Your task to perform on an android device: open a bookmark in the chrome app Image 0: 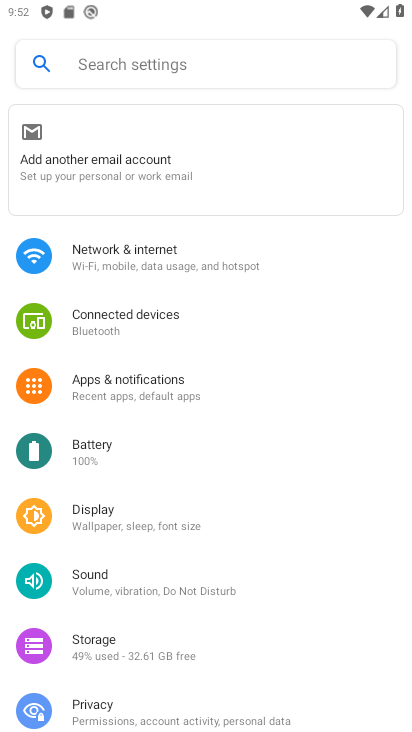
Step 0: press home button
Your task to perform on an android device: open a bookmark in the chrome app Image 1: 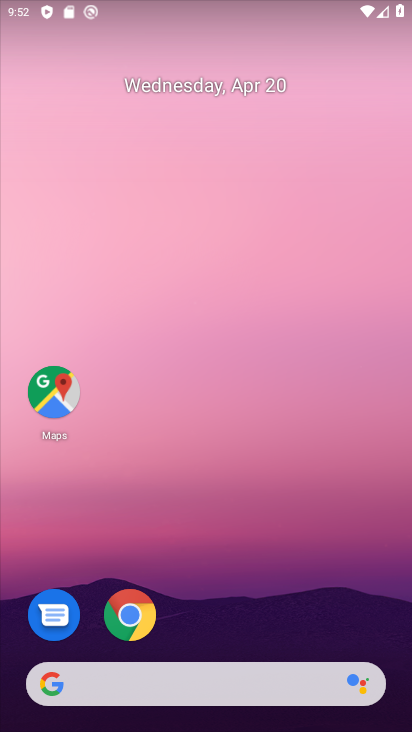
Step 1: click (137, 634)
Your task to perform on an android device: open a bookmark in the chrome app Image 2: 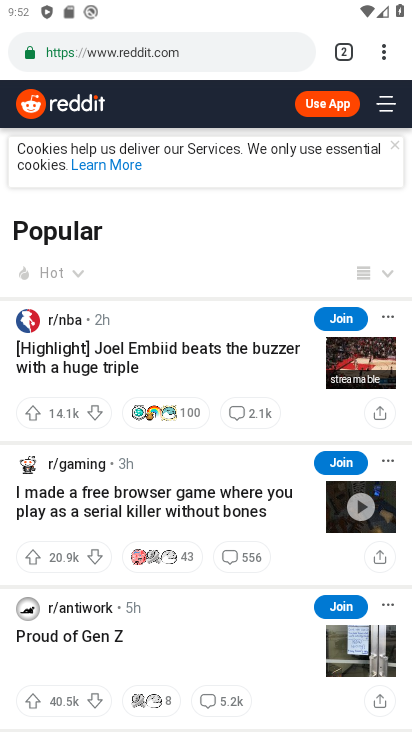
Step 2: click (392, 58)
Your task to perform on an android device: open a bookmark in the chrome app Image 3: 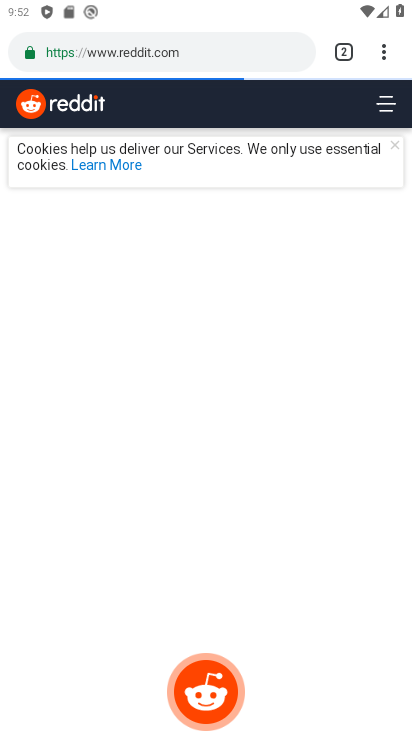
Step 3: click (395, 48)
Your task to perform on an android device: open a bookmark in the chrome app Image 4: 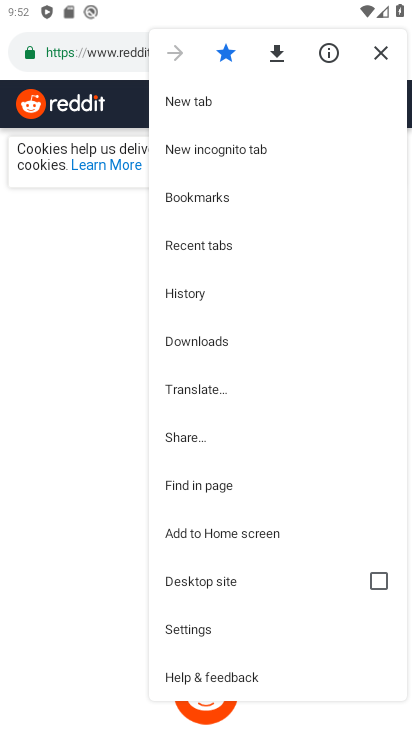
Step 4: click (228, 199)
Your task to perform on an android device: open a bookmark in the chrome app Image 5: 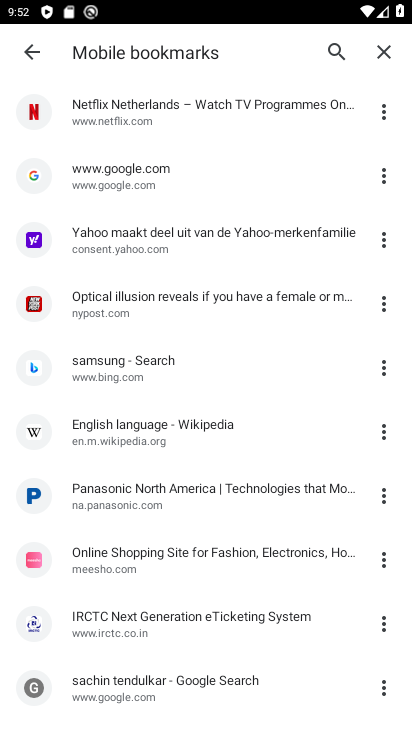
Step 5: click (163, 116)
Your task to perform on an android device: open a bookmark in the chrome app Image 6: 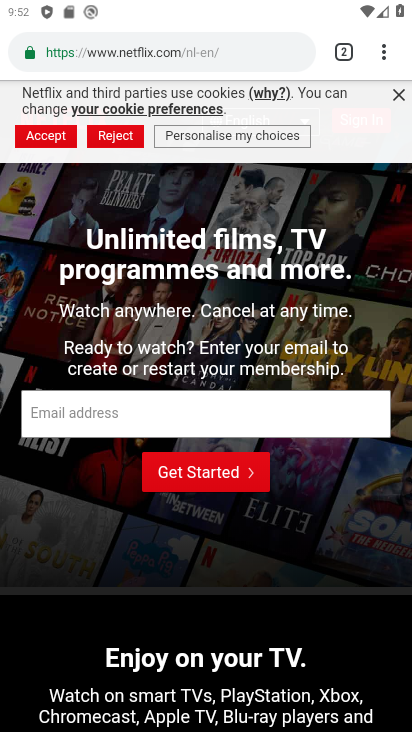
Step 6: task complete